Your task to perform on an android device: turn on translation in the chrome app Image 0: 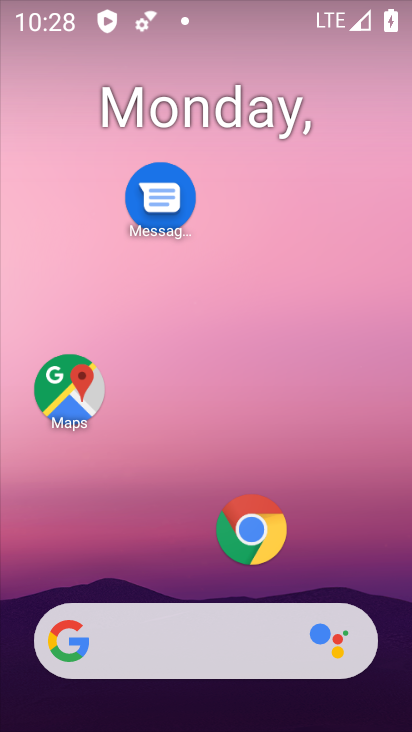
Step 0: drag from (170, 538) to (252, 239)
Your task to perform on an android device: turn on translation in the chrome app Image 1: 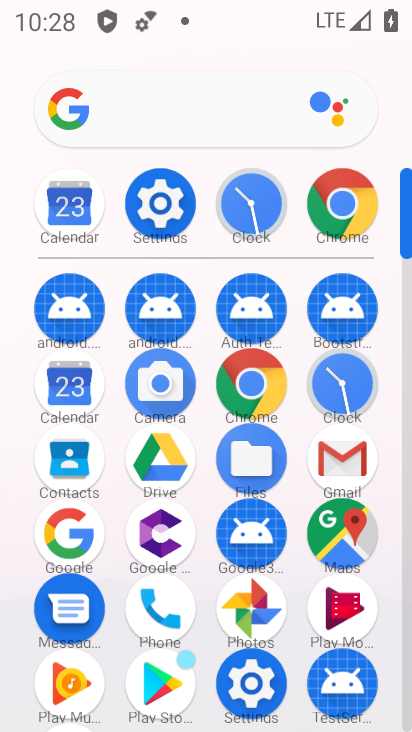
Step 1: click (265, 395)
Your task to perform on an android device: turn on translation in the chrome app Image 2: 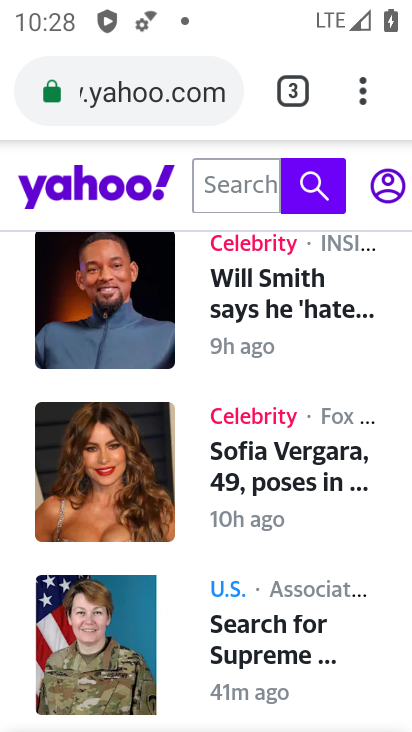
Step 2: click (361, 105)
Your task to perform on an android device: turn on translation in the chrome app Image 3: 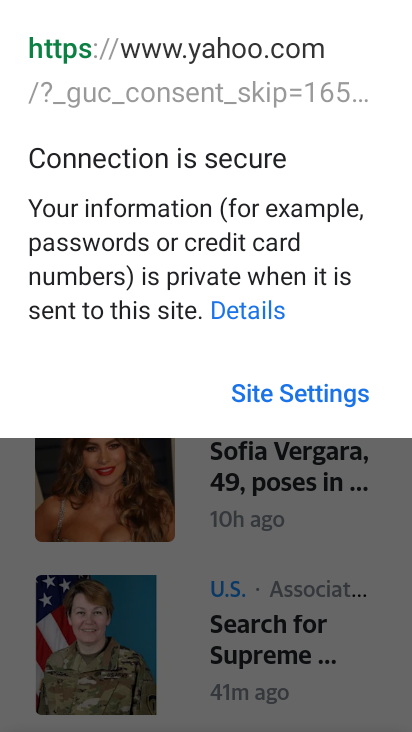
Step 3: click (320, 546)
Your task to perform on an android device: turn on translation in the chrome app Image 4: 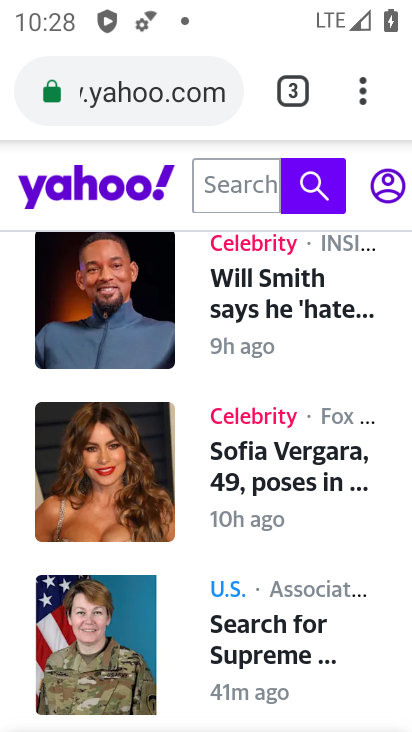
Step 4: click (356, 90)
Your task to perform on an android device: turn on translation in the chrome app Image 5: 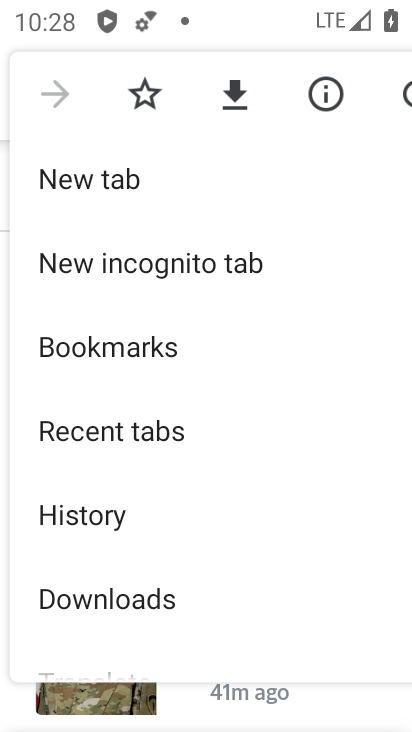
Step 5: drag from (227, 521) to (235, 265)
Your task to perform on an android device: turn on translation in the chrome app Image 6: 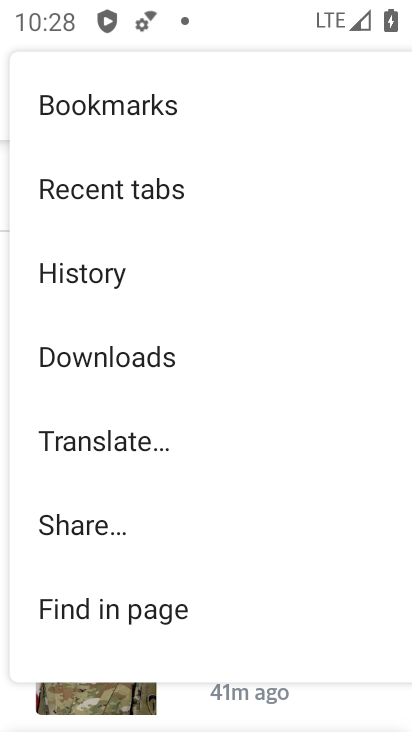
Step 6: drag from (156, 583) to (167, 300)
Your task to perform on an android device: turn on translation in the chrome app Image 7: 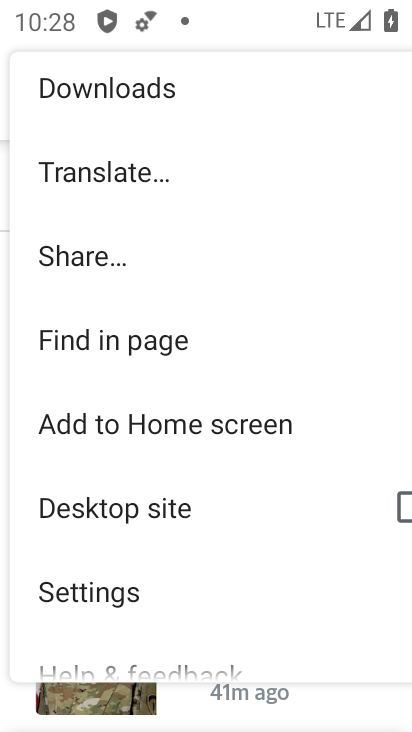
Step 7: click (149, 594)
Your task to perform on an android device: turn on translation in the chrome app Image 8: 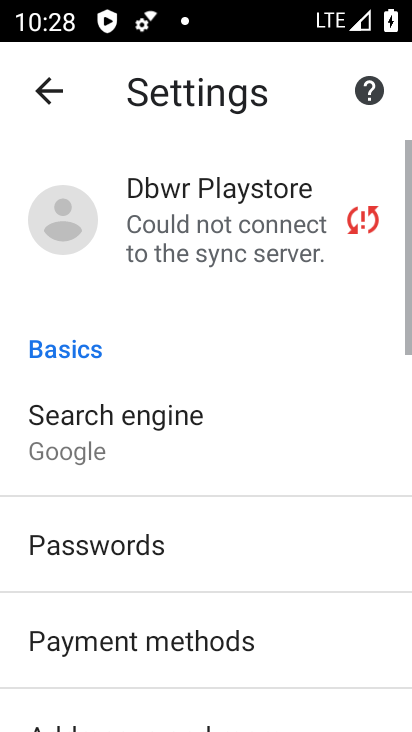
Step 8: drag from (149, 593) to (170, 308)
Your task to perform on an android device: turn on translation in the chrome app Image 9: 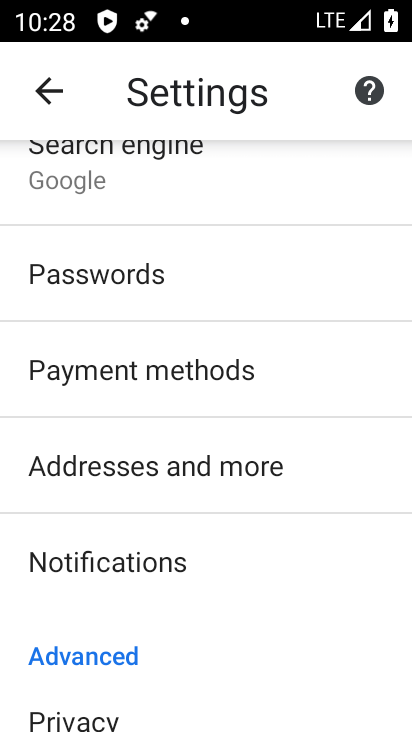
Step 9: drag from (164, 614) to (145, 332)
Your task to perform on an android device: turn on translation in the chrome app Image 10: 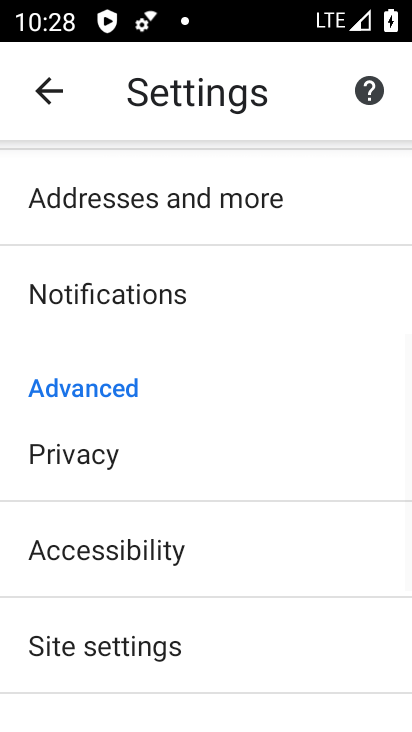
Step 10: drag from (102, 681) to (113, 419)
Your task to perform on an android device: turn on translation in the chrome app Image 11: 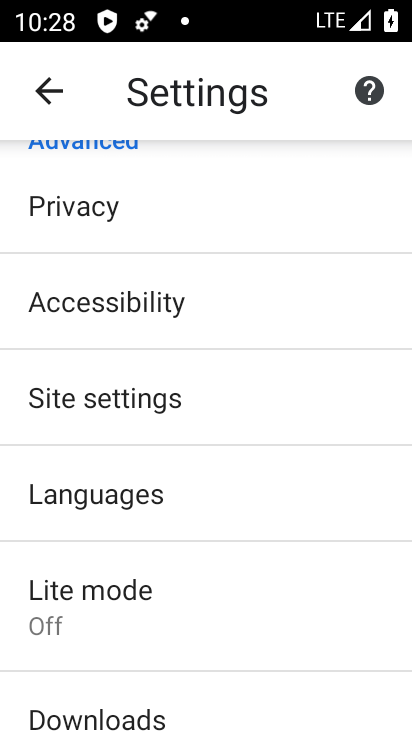
Step 11: click (130, 501)
Your task to perform on an android device: turn on translation in the chrome app Image 12: 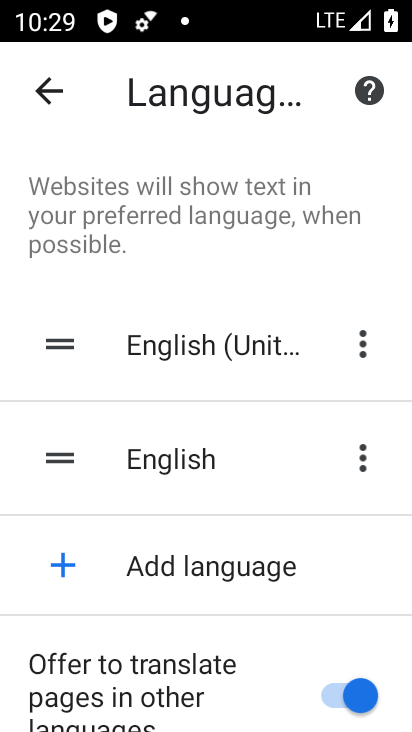
Step 12: task complete